Your task to perform on an android device: Open Wikipedia Image 0: 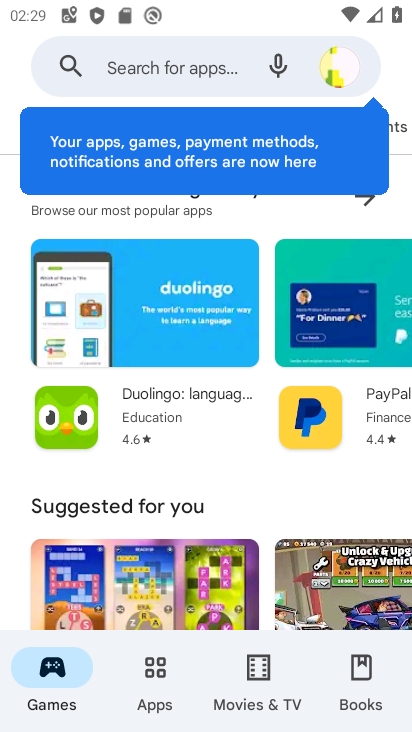
Step 0: press home button
Your task to perform on an android device: Open Wikipedia Image 1: 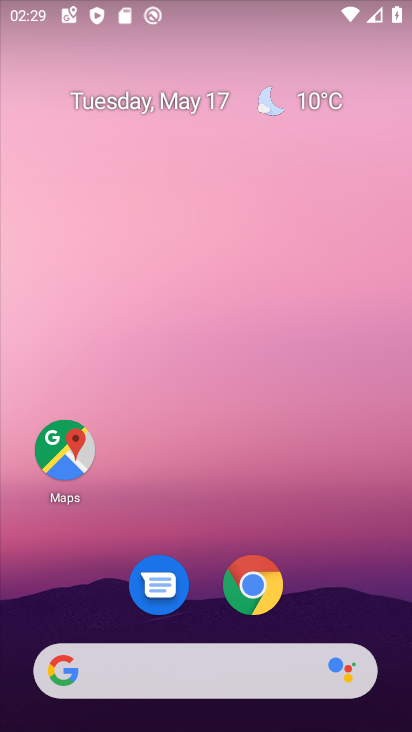
Step 1: click (252, 593)
Your task to perform on an android device: Open Wikipedia Image 2: 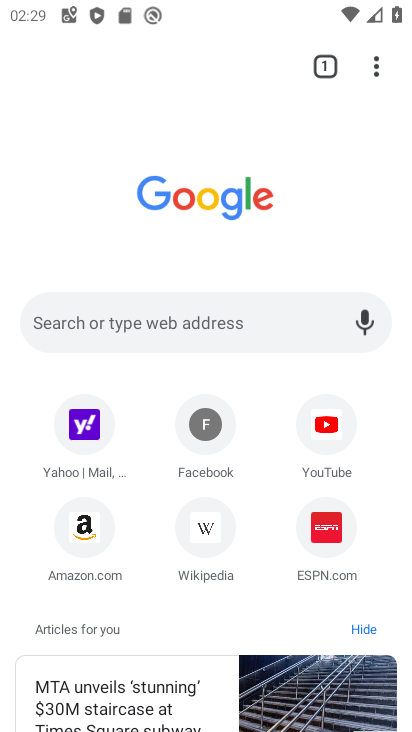
Step 2: click (210, 534)
Your task to perform on an android device: Open Wikipedia Image 3: 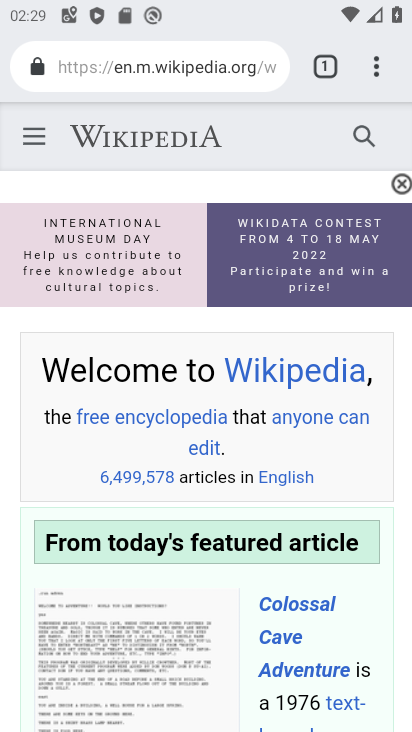
Step 3: task complete